Your task to perform on an android device: turn on bluetooth scan Image 0: 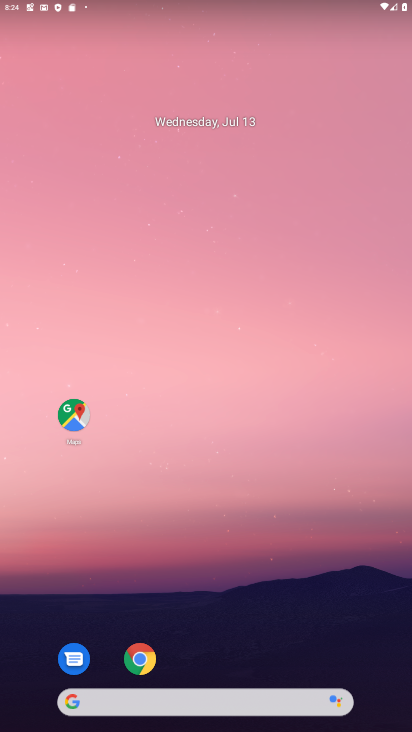
Step 0: press home button
Your task to perform on an android device: turn on bluetooth scan Image 1: 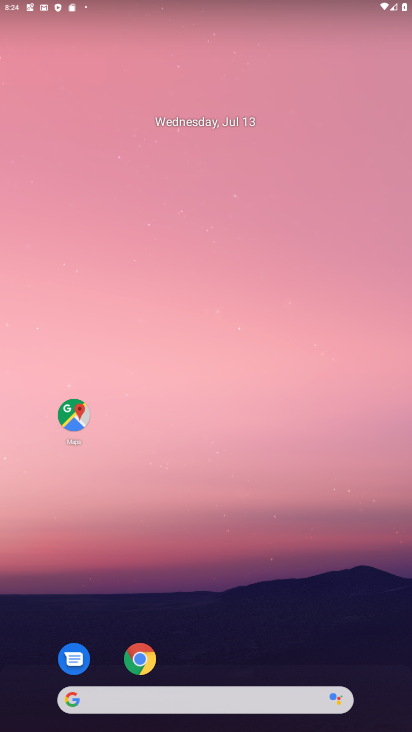
Step 1: drag from (165, 425) to (374, 4)
Your task to perform on an android device: turn on bluetooth scan Image 2: 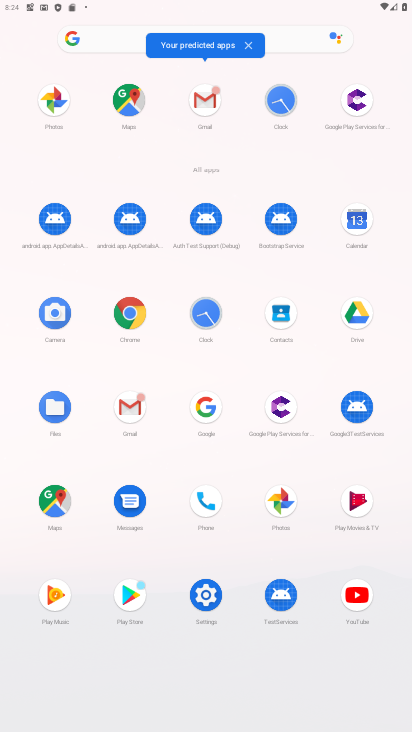
Step 2: click (206, 594)
Your task to perform on an android device: turn on bluetooth scan Image 3: 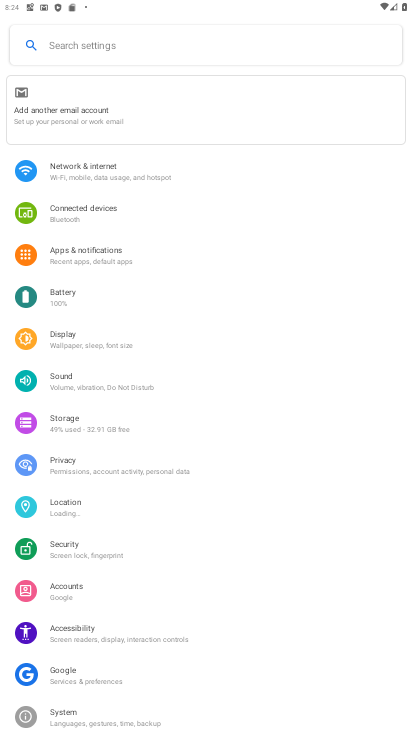
Step 3: click (121, 172)
Your task to perform on an android device: turn on bluetooth scan Image 4: 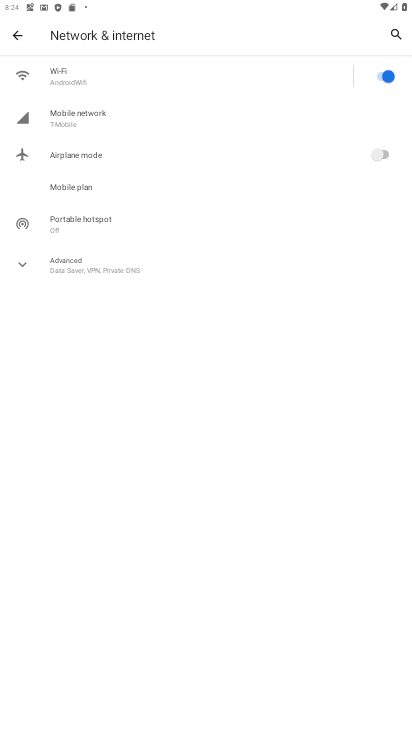
Step 4: click (23, 33)
Your task to perform on an android device: turn on bluetooth scan Image 5: 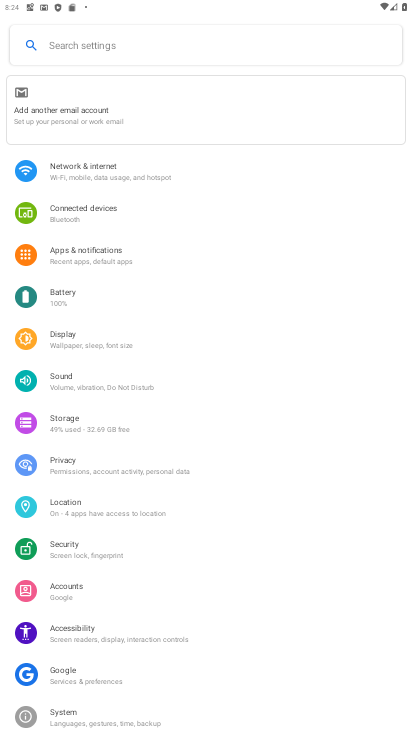
Step 5: task complete